Your task to perform on an android device: Open the map Image 0: 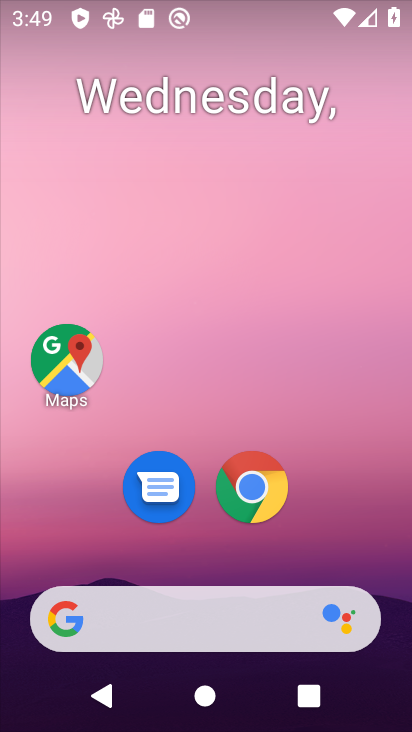
Step 0: drag from (364, 543) to (360, 293)
Your task to perform on an android device: Open the map Image 1: 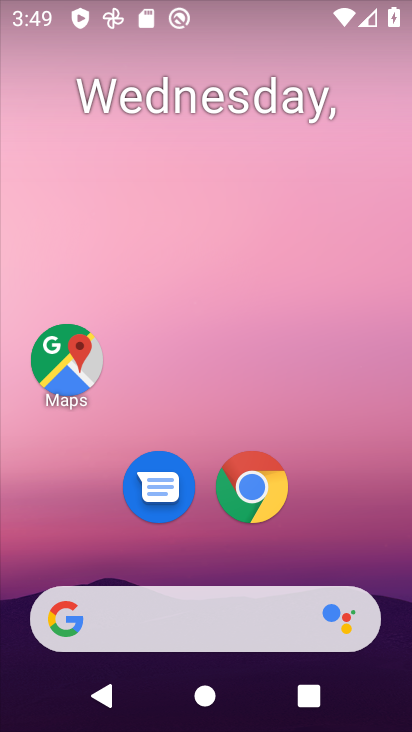
Step 1: drag from (372, 525) to (364, 303)
Your task to perform on an android device: Open the map Image 2: 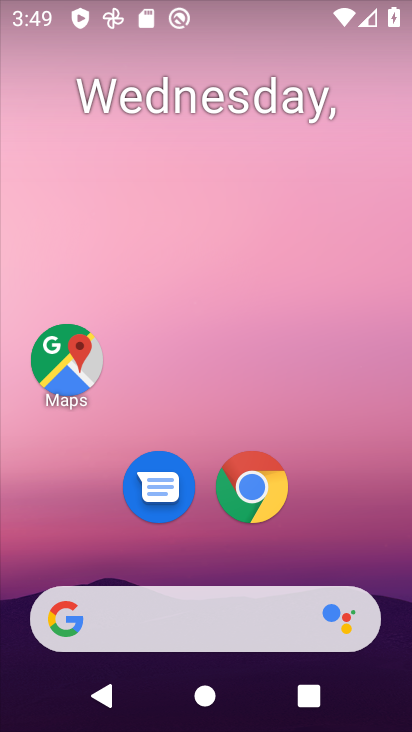
Step 2: drag from (391, 532) to (404, 352)
Your task to perform on an android device: Open the map Image 3: 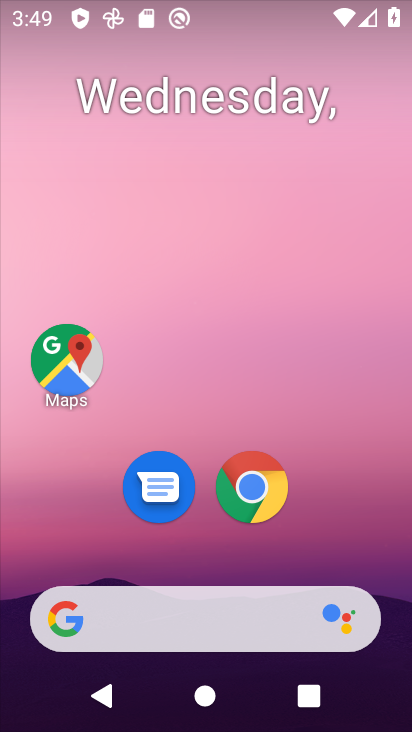
Step 3: drag from (364, 543) to (360, 90)
Your task to perform on an android device: Open the map Image 4: 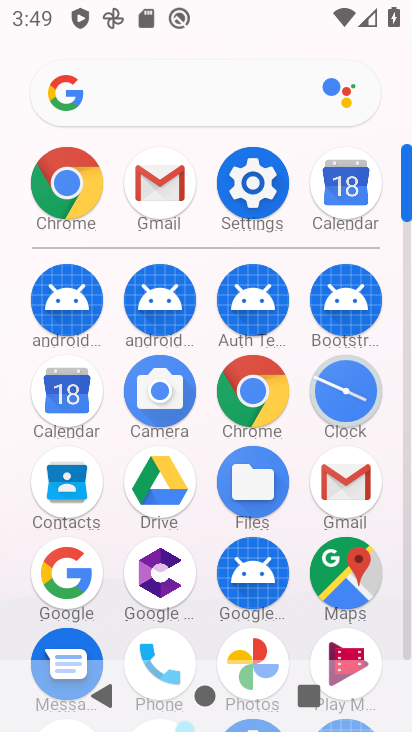
Step 4: drag from (402, 472) to (406, 373)
Your task to perform on an android device: Open the map Image 5: 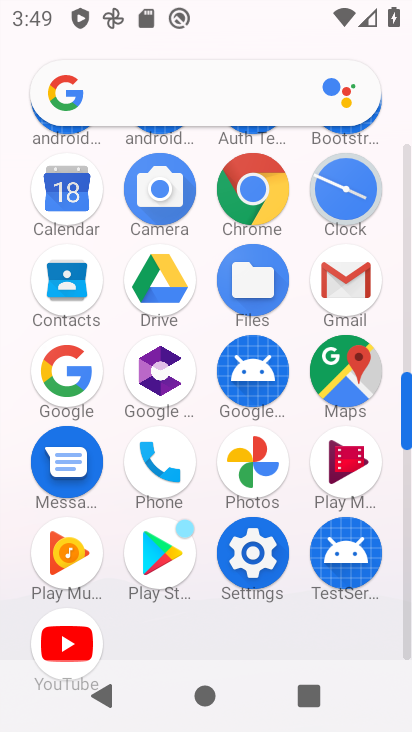
Step 5: click (375, 356)
Your task to perform on an android device: Open the map Image 6: 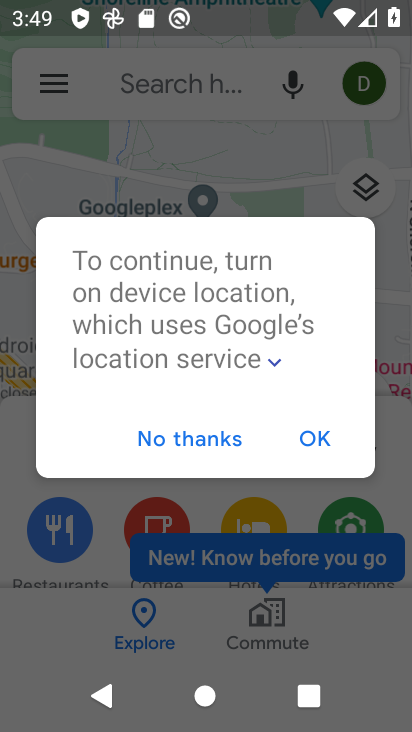
Step 6: task complete